Your task to perform on an android device: What's on my calendar tomorrow? Image 0: 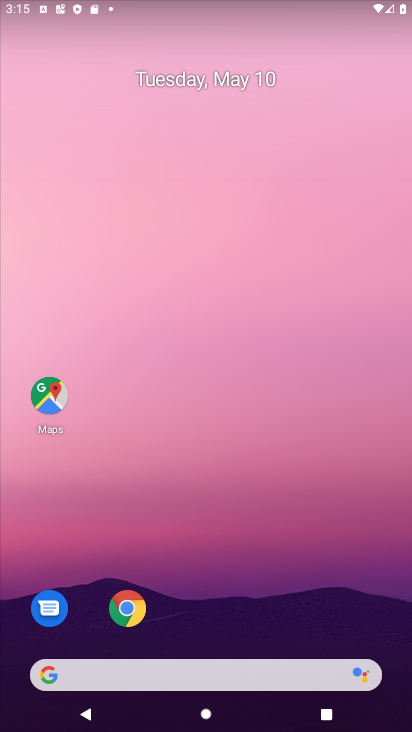
Step 0: drag from (372, 624) to (241, 13)
Your task to perform on an android device: What's on my calendar tomorrow? Image 1: 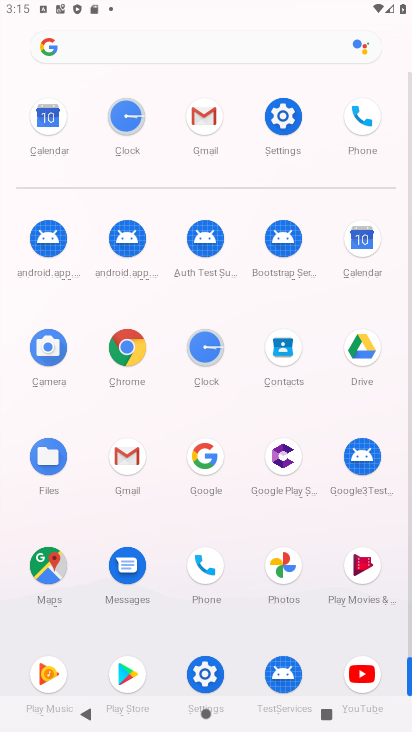
Step 1: click (361, 235)
Your task to perform on an android device: What's on my calendar tomorrow? Image 2: 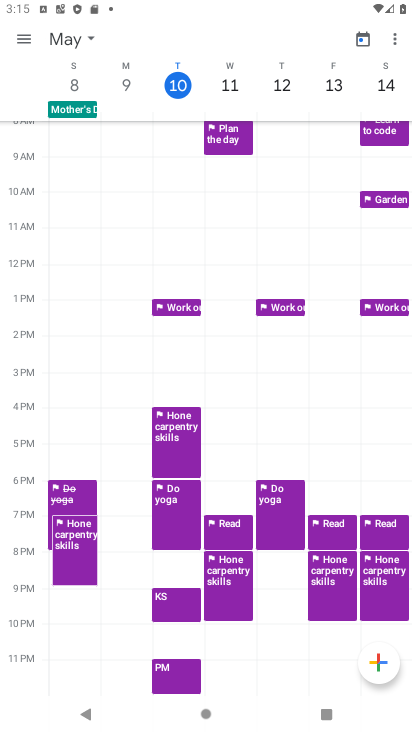
Step 2: click (24, 33)
Your task to perform on an android device: What's on my calendar tomorrow? Image 3: 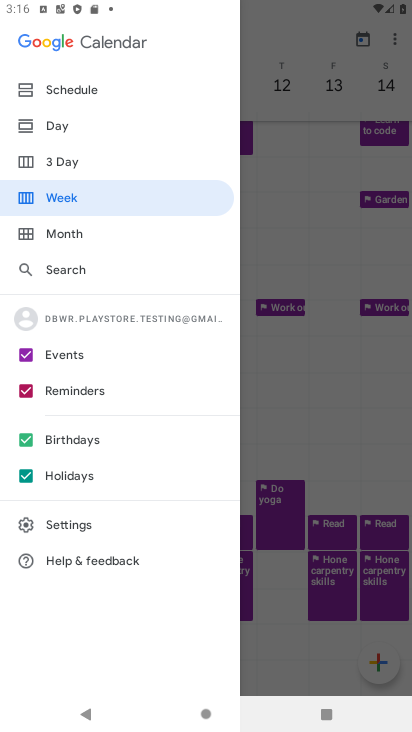
Step 3: click (61, 115)
Your task to perform on an android device: What's on my calendar tomorrow? Image 4: 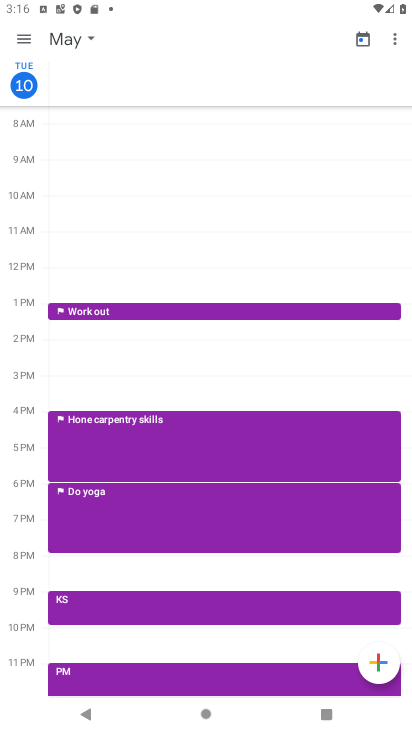
Step 4: click (89, 40)
Your task to perform on an android device: What's on my calendar tomorrow? Image 5: 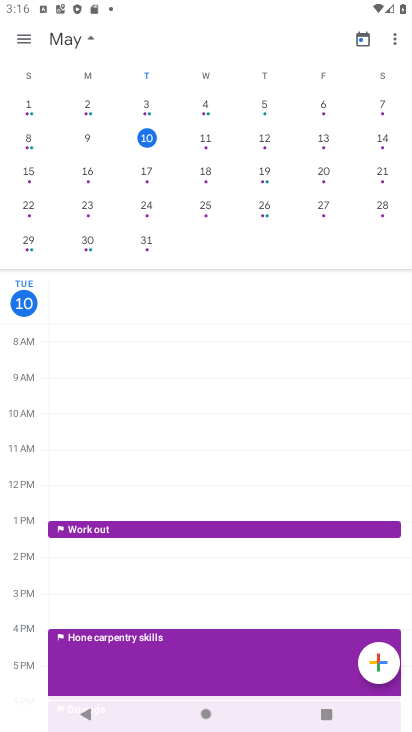
Step 5: click (209, 138)
Your task to perform on an android device: What's on my calendar tomorrow? Image 6: 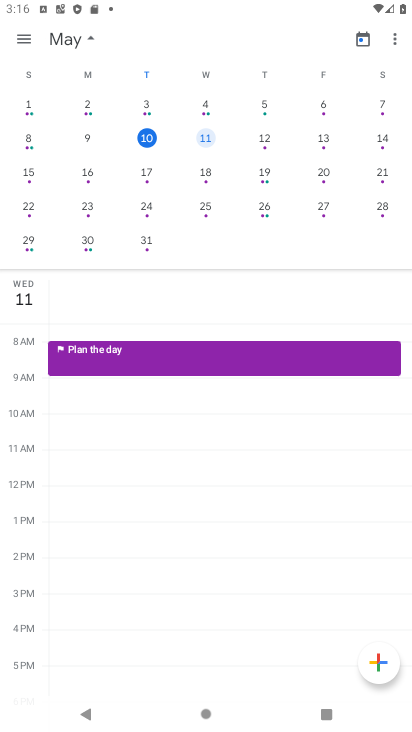
Step 6: task complete